Your task to perform on an android device: open app "Facebook Messenger" Image 0: 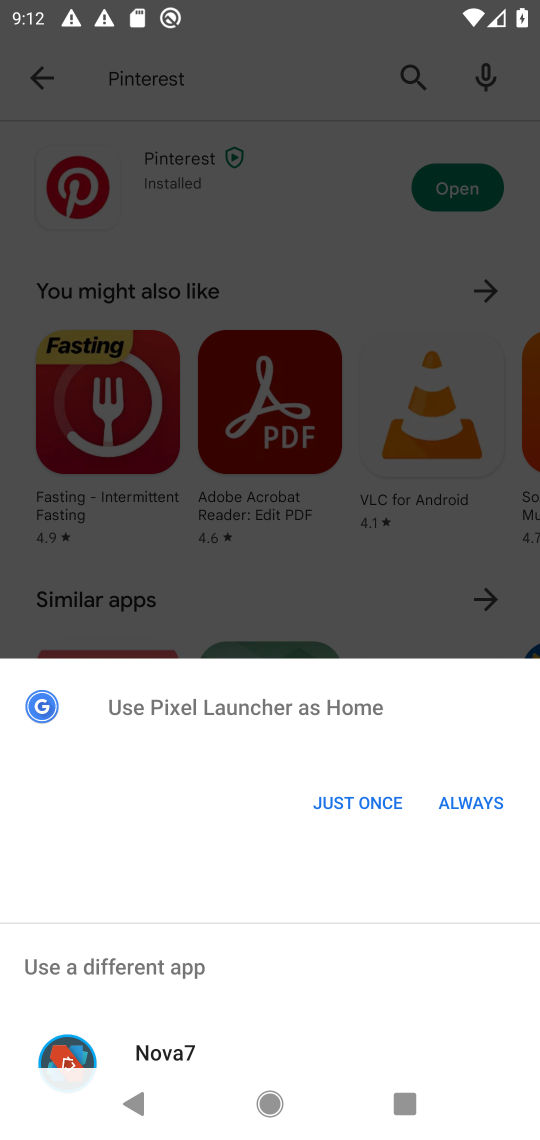
Step 0: click (394, 794)
Your task to perform on an android device: open app "Facebook Messenger" Image 1: 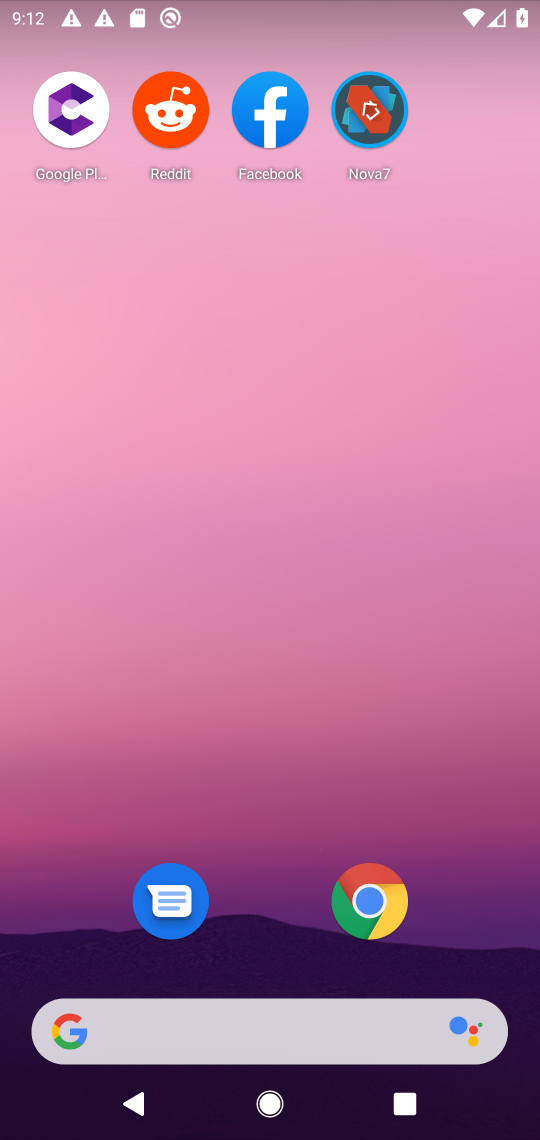
Step 1: drag from (184, 959) to (326, 154)
Your task to perform on an android device: open app "Facebook Messenger" Image 2: 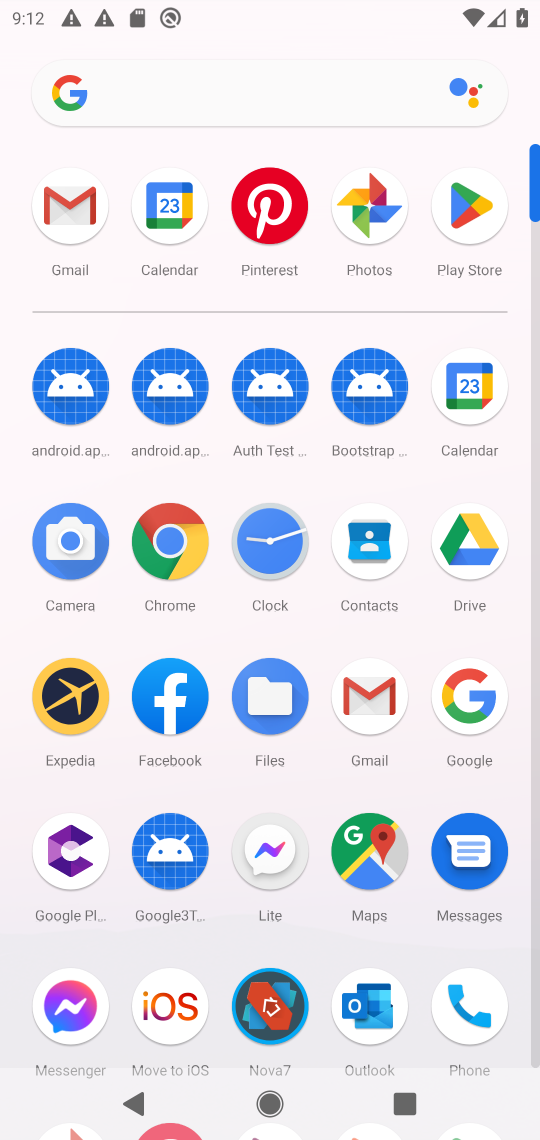
Step 2: click (482, 211)
Your task to perform on an android device: open app "Facebook Messenger" Image 3: 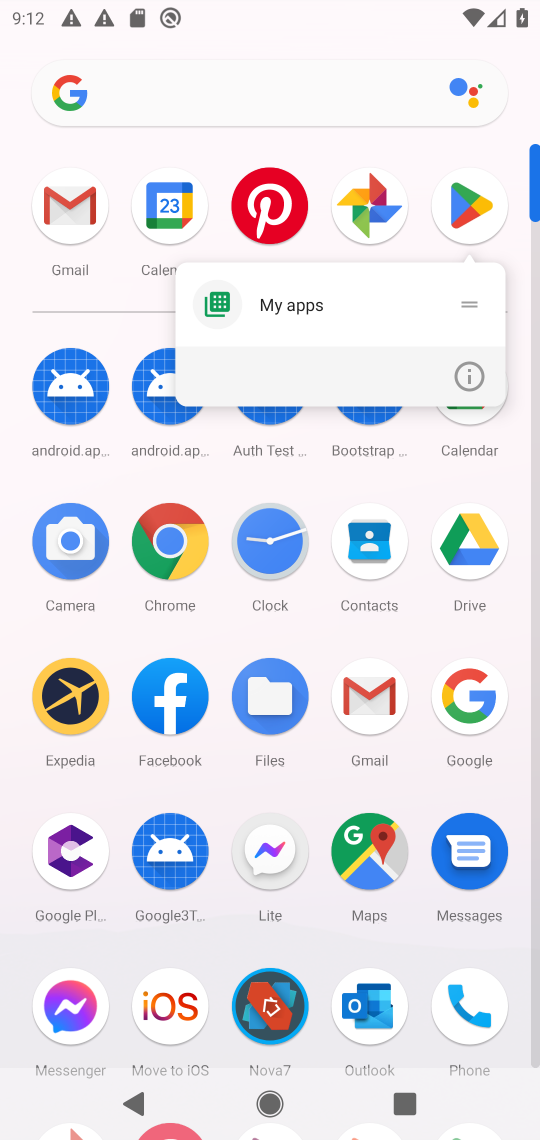
Step 3: click (482, 213)
Your task to perform on an android device: open app "Facebook Messenger" Image 4: 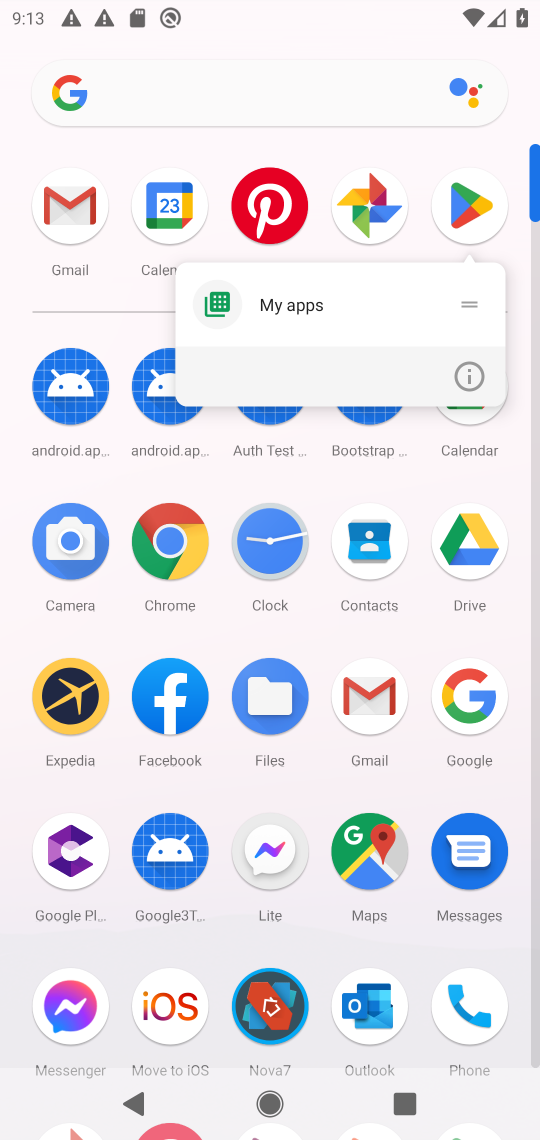
Step 4: click (480, 207)
Your task to perform on an android device: open app "Facebook Messenger" Image 5: 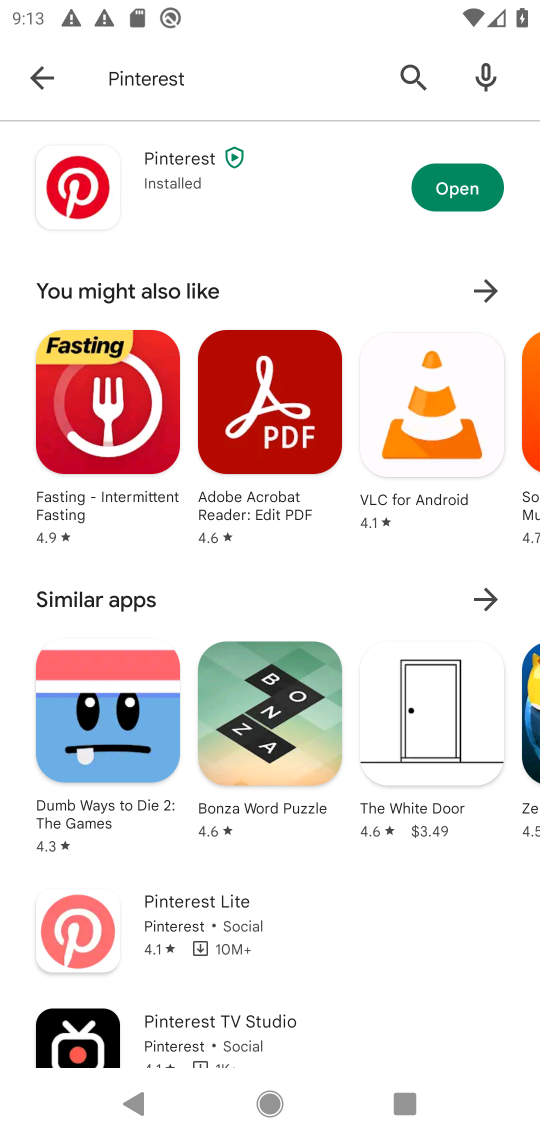
Step 5: press back button
Your task to perform on an android device: open app "Facebook Messenger" Image 6: 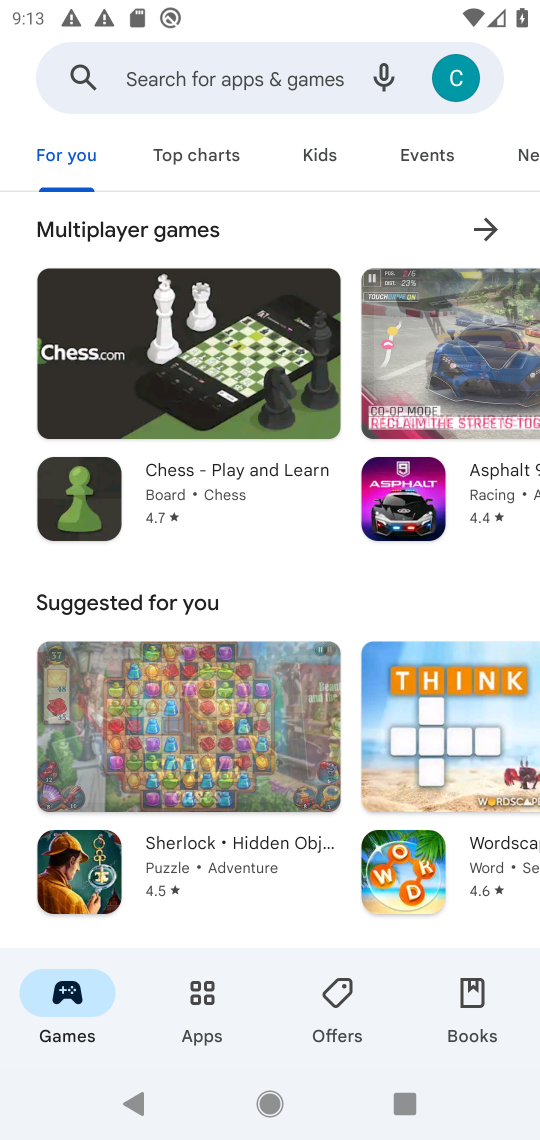
Step 6: click (243, 88)
Your task to perform on an android device: open app "Facebook Messenger" Image 7: 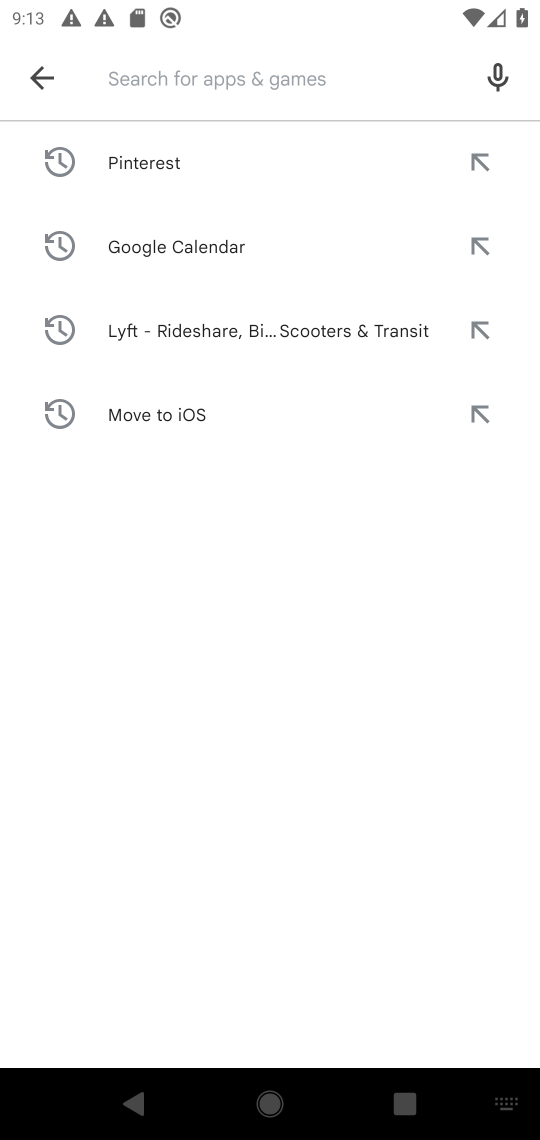
Step 7: press enter
Your task to perform on an android device: open app "Facebook Messenger" Image 8: 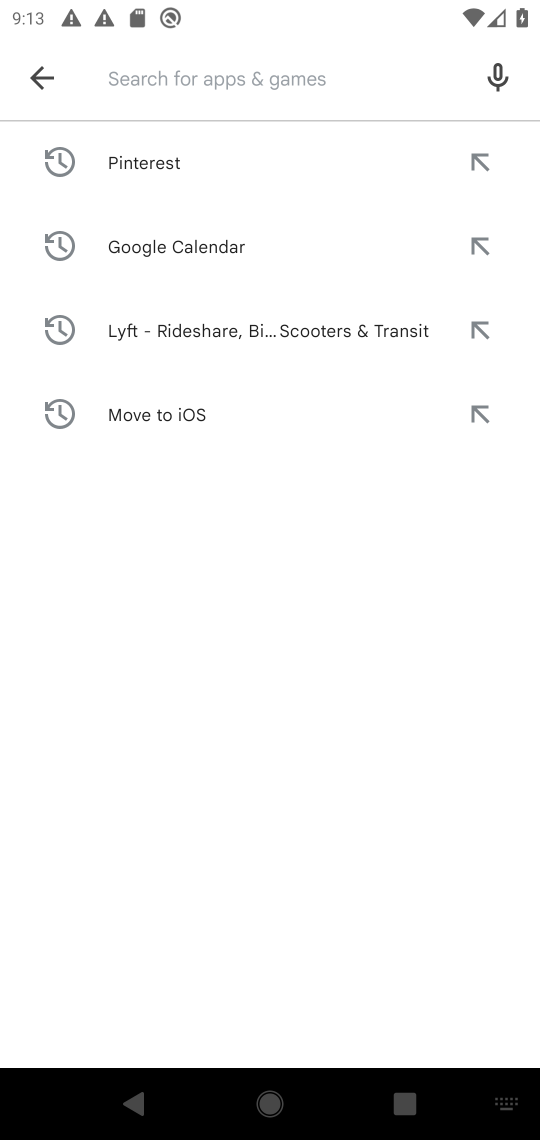
Step 8: type "Facebook Messenger"
Your task to perform on an android device: open app "Facebook Messenger" Image 9: 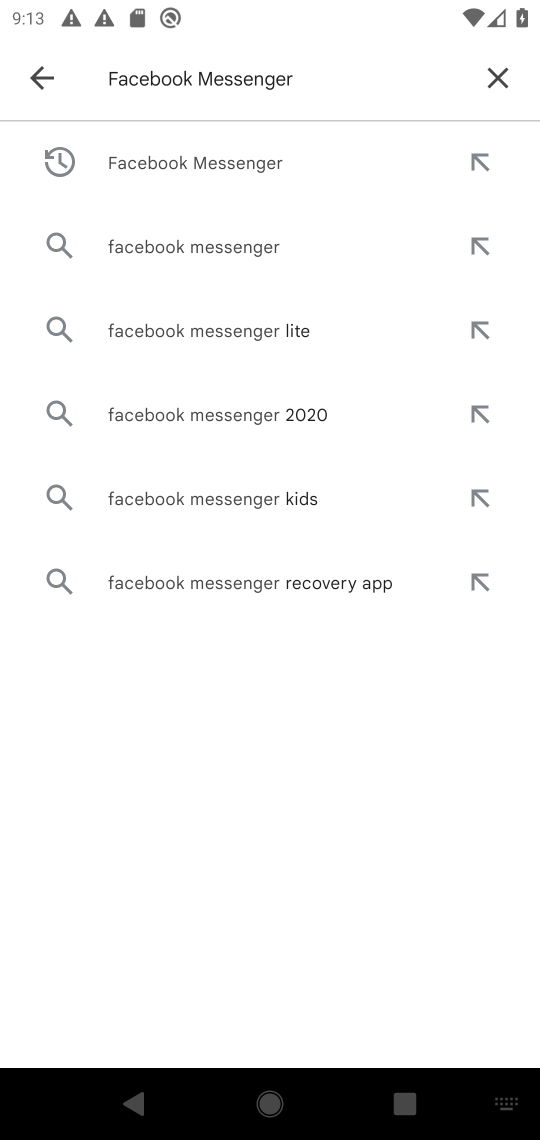
Step 9: click (252, 166)
Your task to perform on an android device: open app "Facebook Messenger" Image 10: 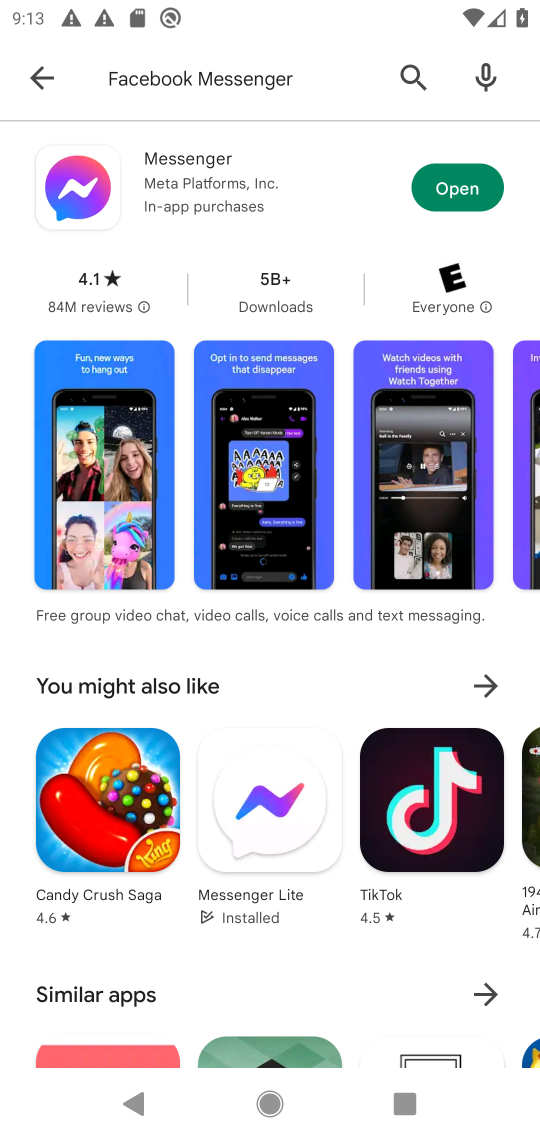
Step 10: click (479, 206)
Your task to perform on an android device: open app "Facebook Messenger" Image 11: 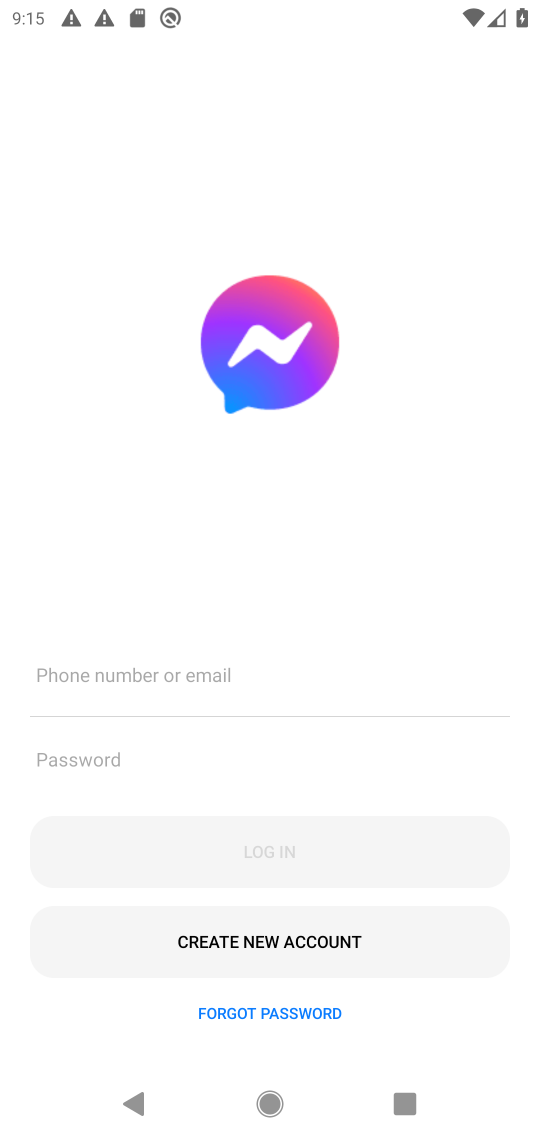
Step 11: task complete